Your task to perform on an android device: toggle airplane mode Image 0: 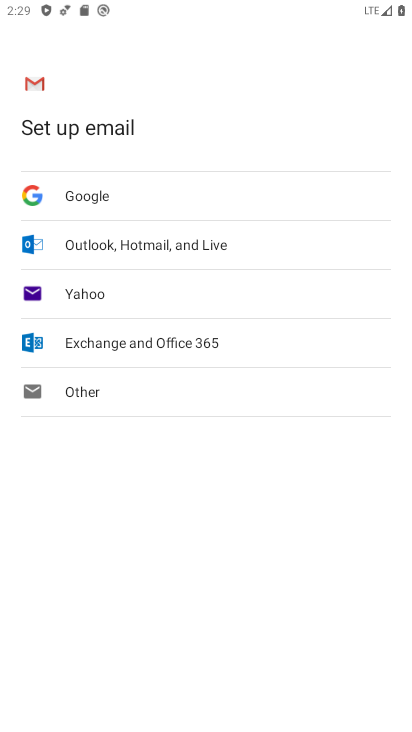
Step 0: press back button
Your task to perform on an android device: toggle airplane mode Image 1: 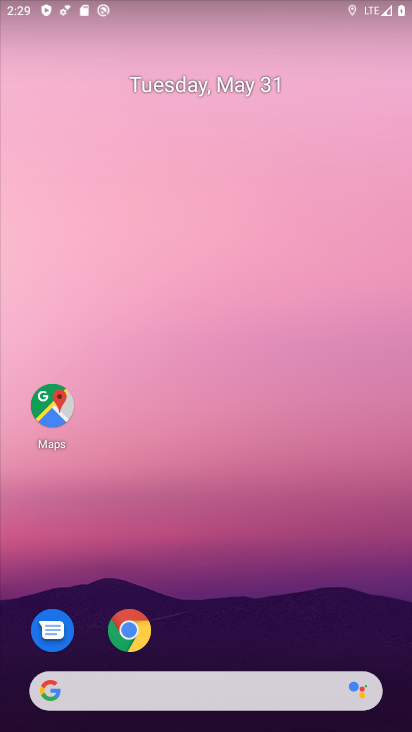
Step 1: drag from (200, 645) to (259, 106)
Your task to perform on an android device: toggle airplane mode Image 2: 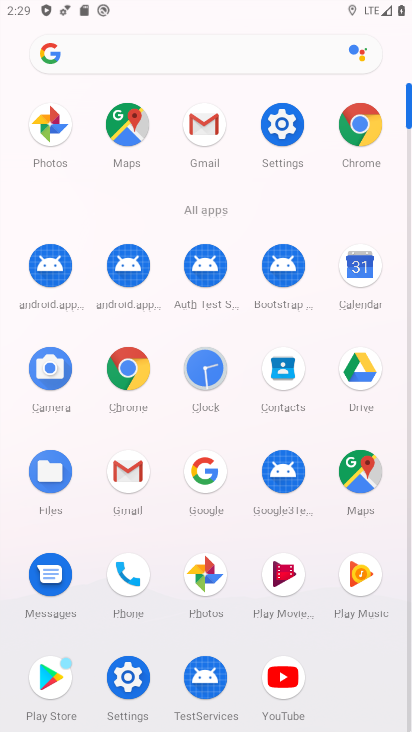
Step 2: drag from (332, 10) to (282, 537)
Your task to perform on an android device: toggle airplane mode Image 3: 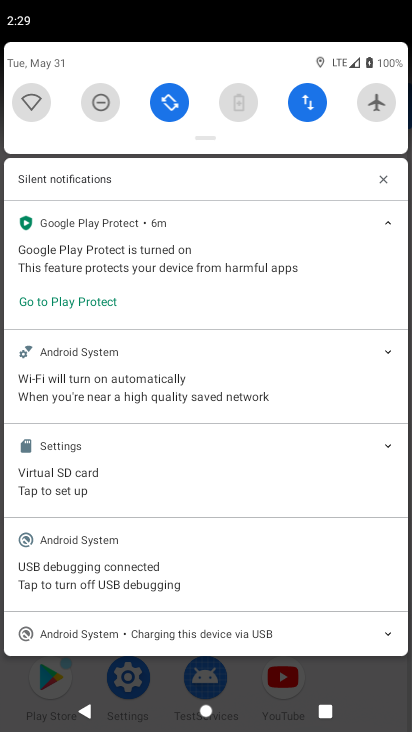
Step 3: click (375, 100)
Your task to perform on an android device: toggle airplane mode Image 4: 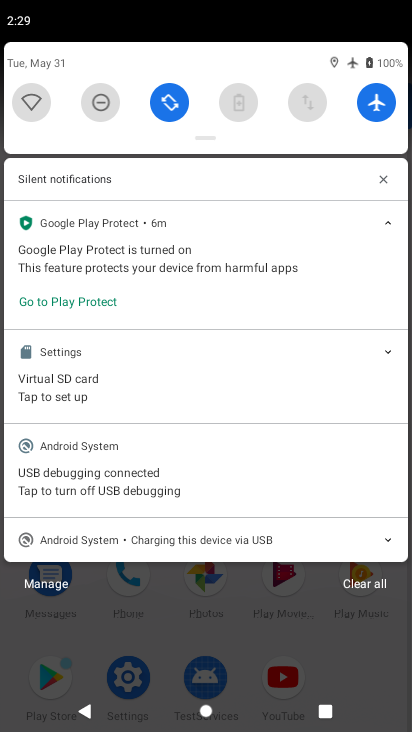
Step 4: task complete